Your task to perform on an android device: turn pop-ups off in chrome Image 0: 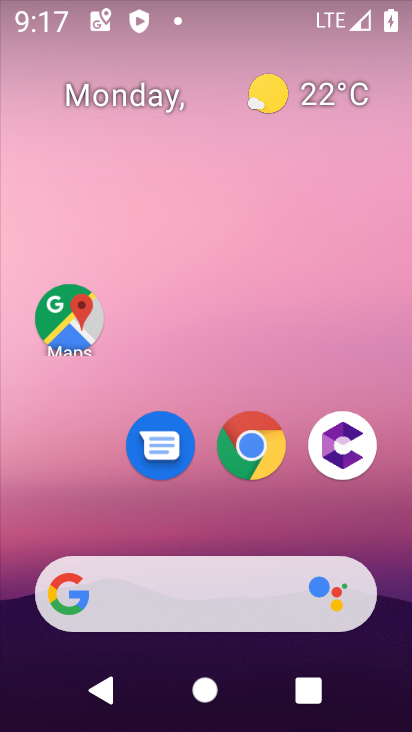
Step 0: press home button
Your task to perform on an android device: turn pop-ups off in chrome Image 1: 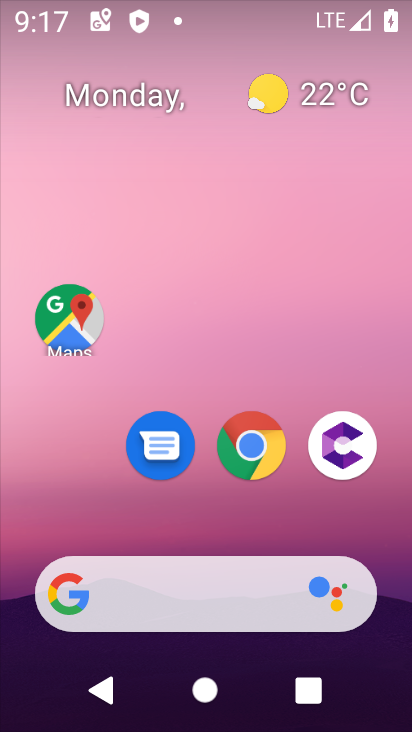
Step 1: drag from (278, 515) to (353, 1)
Your task to perform on an android device: turn pop-ups off in chrome Image 2: 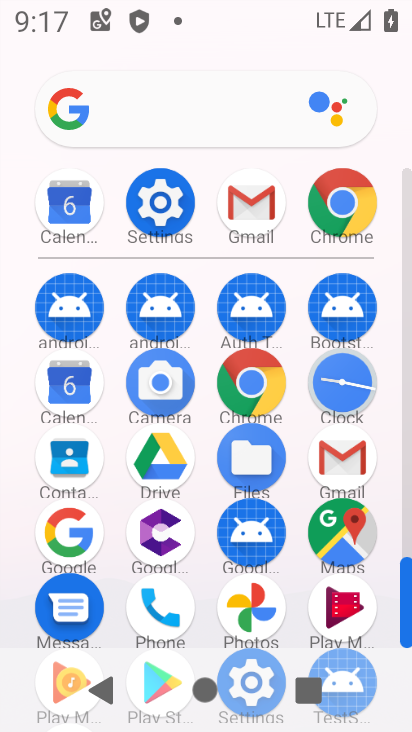
Step 2: click (354, 189)
Your task to perform on an android device: turn pop-ups off in chrome Image 3: 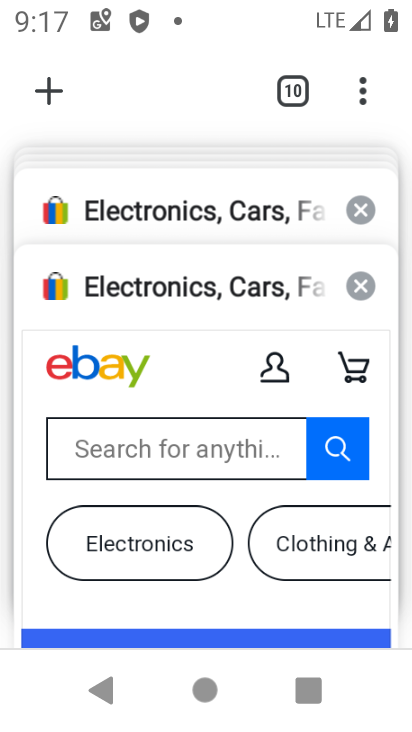
Step 3: drag from (360, 98) to (81, 348)
Your task to perform on an android device: turn pop-ups off in chrome Image 4: 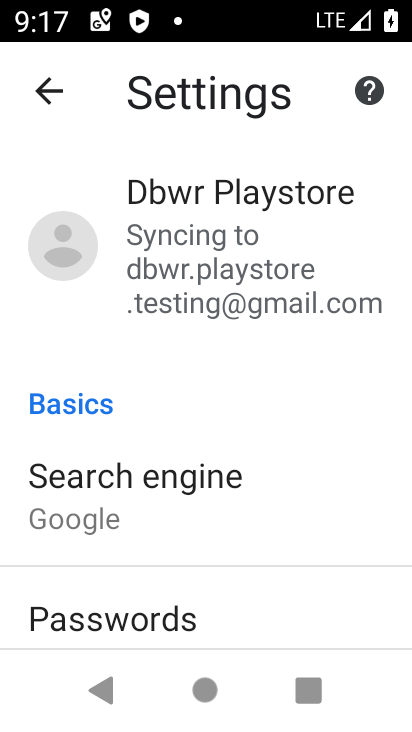
Step 4: drag from (266, 597) to (324, 181)
Your task to perform on an android device: turn pop-ups off in chrome Image 5: 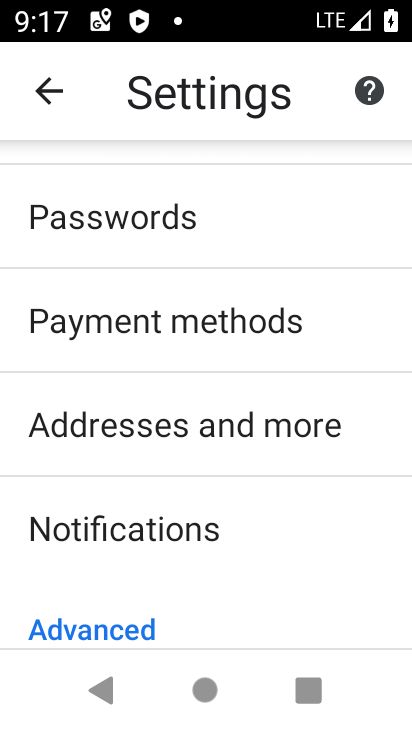
Step 5: drag from (268, 557) to (316, 295)
Your task to perform on an android device: turn pop-ups off in chrome Image 6: 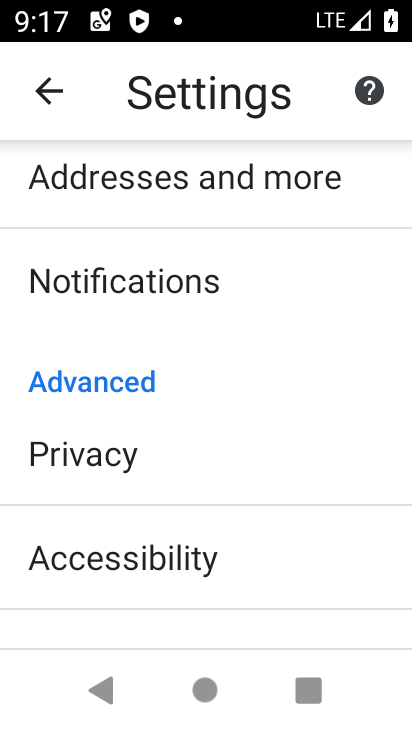
Step 6: drag from (274, 482) to (326, 303)
Your task to perform on an android device: turn pop-ups off in chrome Image 7: 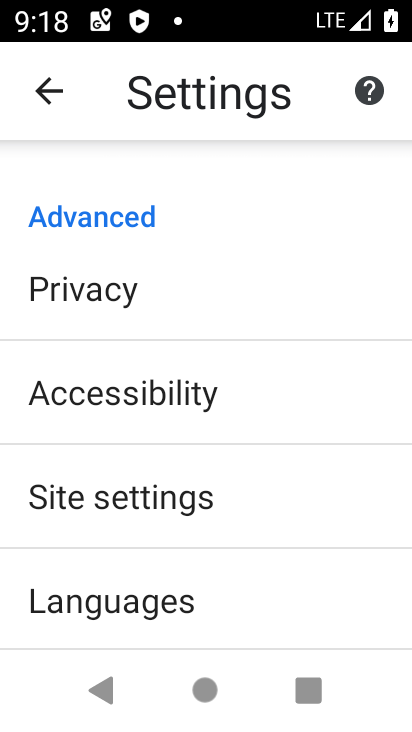
Step 7: click (162, 504)
Your task to perform on an android device: turn pop-ups off in chrome Image 8: 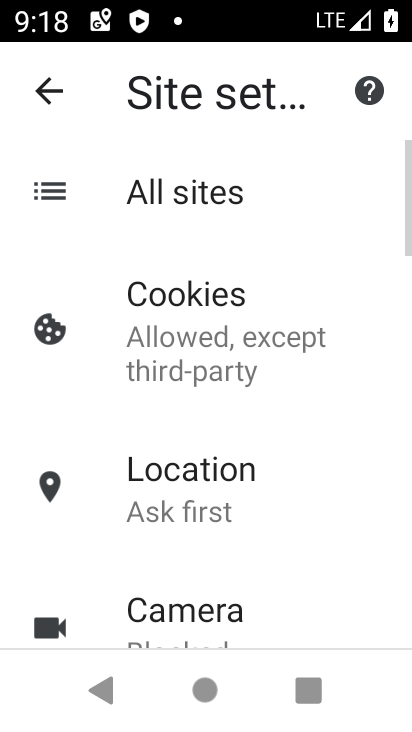
Step 8: drag from (339, 541) to (368, 86)
Your task to perform on an android device: turn pop-ups off in chrome Image 9: 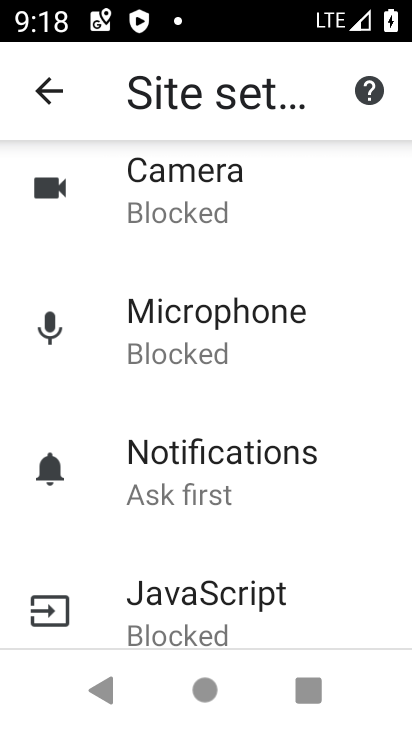
Step 9: drag from (360, 557) to (403, 185)
Your task to perform on an android device: turn pop-ups off in chrome Image 10: 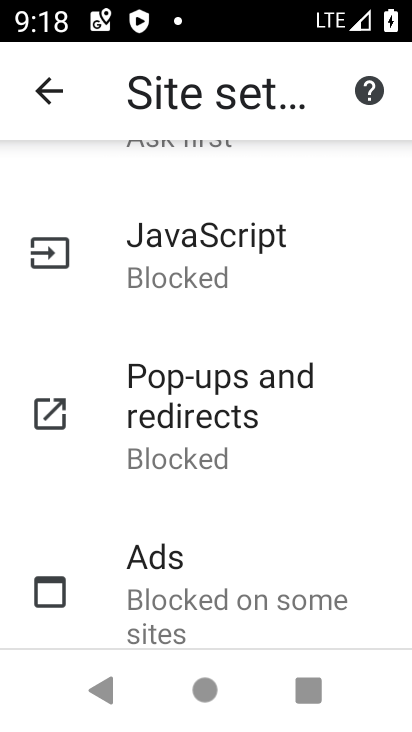
Step 10: click (204, 404)
Your task to perform on an android device: turn pop-ups off in chrome Image 11: 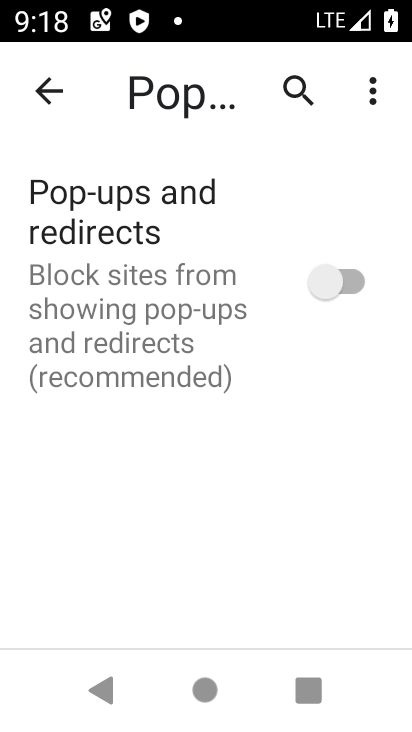
Step 11: task complete